Your task to perform on an android device: toggle notifications settings in the gmail app Image 0: 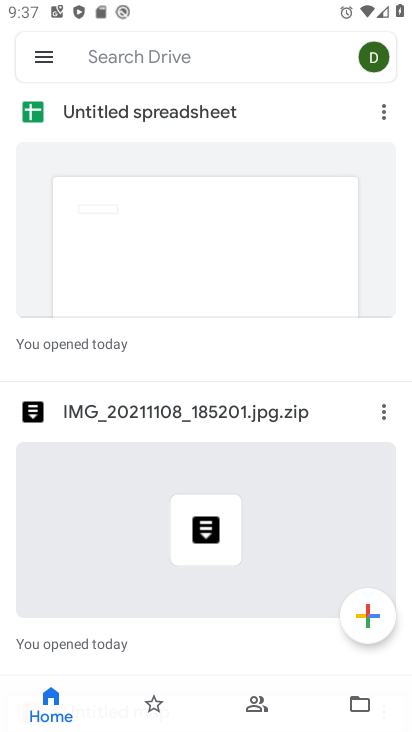
Step 0: press home button
Your task to perform on an android device: toggle notifications settings in the gmail app Image 1: 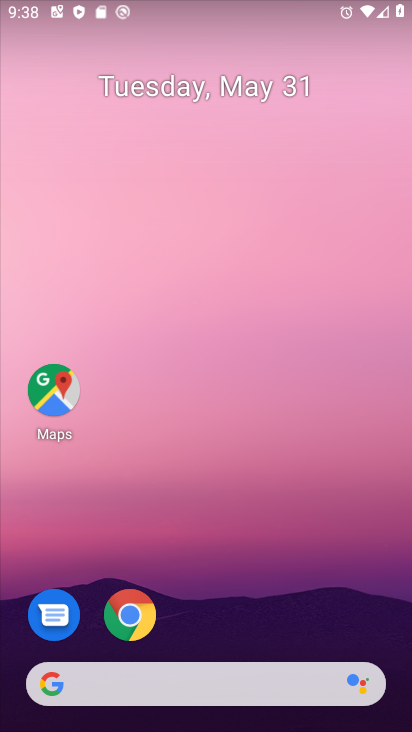
Step 1: drag from (362, 628) to (344, 36)
Your task to perform on an android device: toggle notifications settings in the gmail app Image 2: 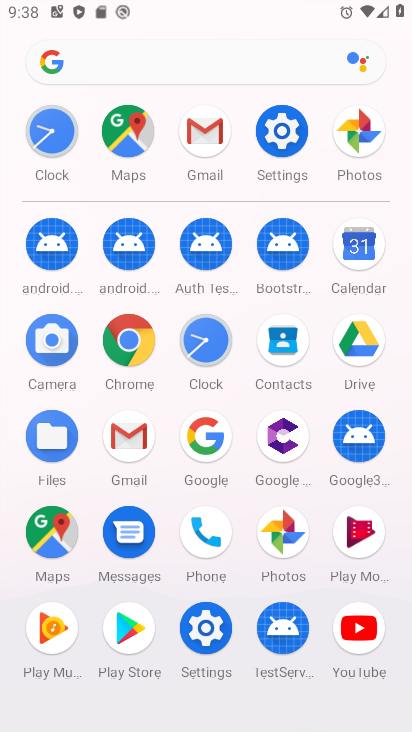
Step 2: click (130, 441)
Your task to perform on an android device: toggle notifications settings in the gmail app Image 3: 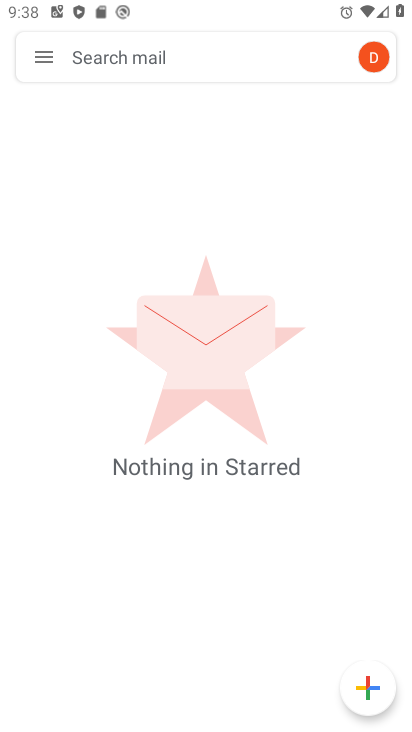
Step 3: click (45, 58)
Your task to perform on an android device: toggle notifications settings in the gmail app Image 4: 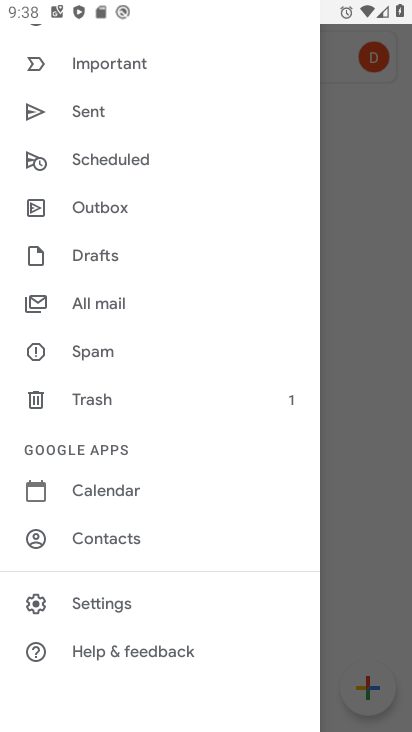
Step 4: click (102, 616)
Your task to perform on an android device: toggle notifications settings in the gmail app Image 5: 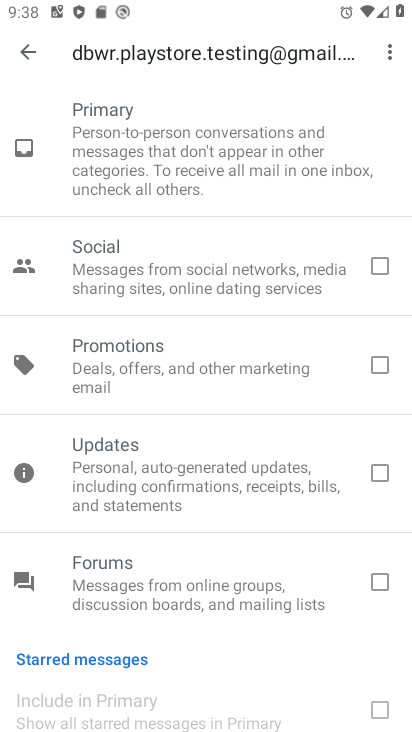
Step 5: press back button
Your task to perform on an android device: toggle notifications settings in the gmail app Image 6: 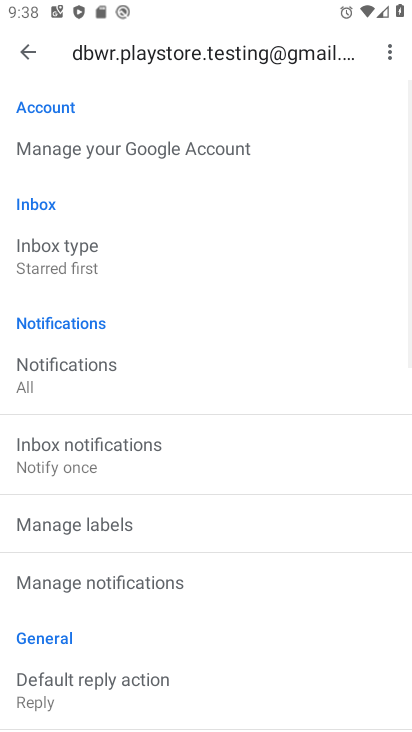
Step 6: click (152, 592)
Your task to perform on an android device: toggle notifications settings in the gmail app Image 7: 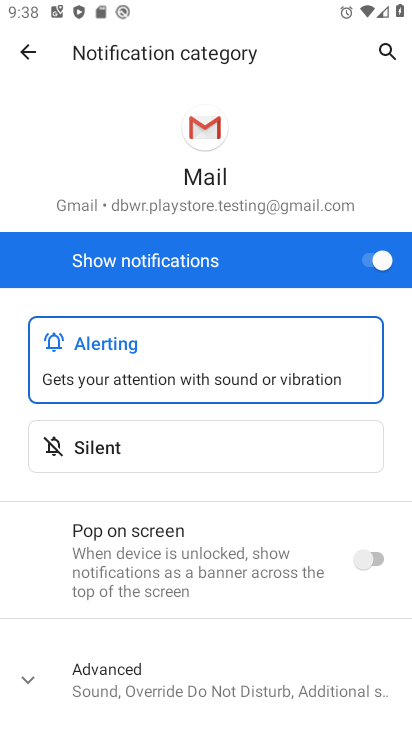
Step 7: click (23, 689)
Your task to perform on an android device: toggle notifications settings in the gmail app Image 8: 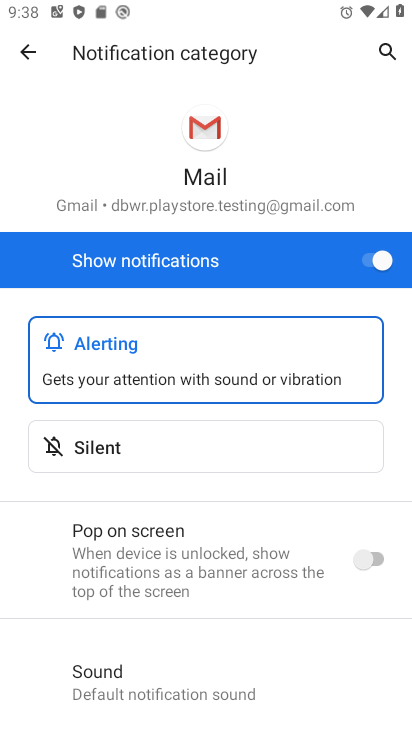
Step 8: click (367, 261)
Your task to perform on an android device: toggle notifications settings in the gmail app Image 9: 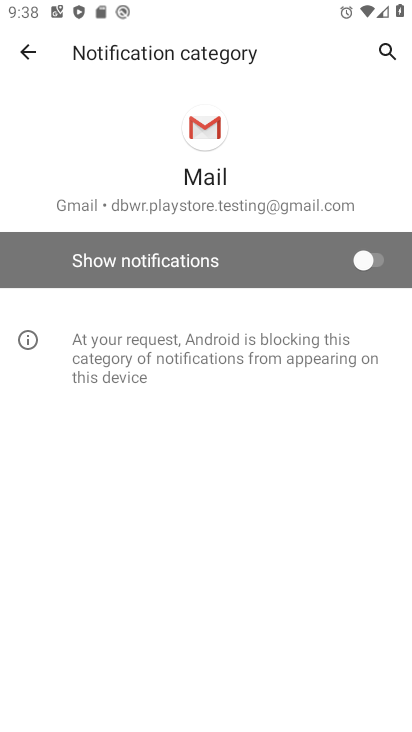
Step 9: task complete